Your task to perform on an android device: Empty the shopping cart on bestbuy.com. Search for "energizer triple a" on bestbuy.com, select the first entry, add it to the cart, then select checkout. Image 0: 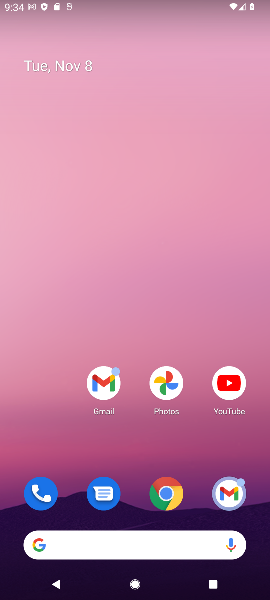
Step 0: click (169, 500)
Your task to perform on an android device: Empty the shopping cart on bestbuy.com. Search for "energizer triple a" on bestbuy.com, select the first entry, add it to the cart, then select checkout. Image 1: 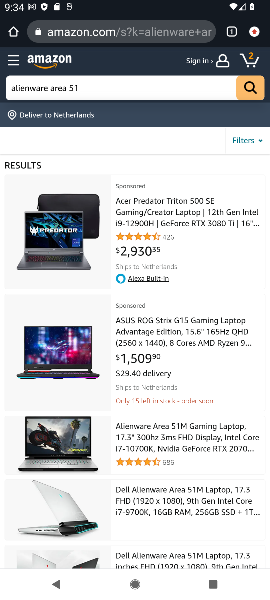
Step 1: click (106, 39)
Your task to perform on an android device: Empty the shopping cart on bestbuy.com. Search for "energizer triple a" on bestbuy.com, select the first entry, add it to the cart, then select checkout. Image 2: 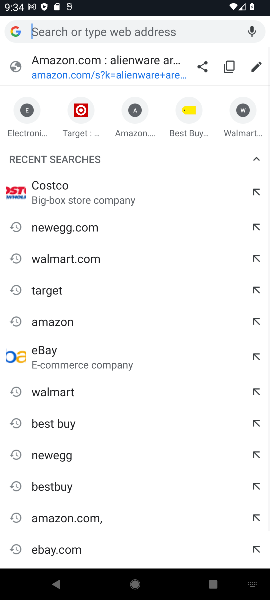
Step 2: click (192, 126)
Your task to perform on an android device: Empty the shopping cart on bestbuy.com. Search for "energizer triple a" on bestbuy.com, select the first entry, add it to the cart, then select checkout. Image 3: 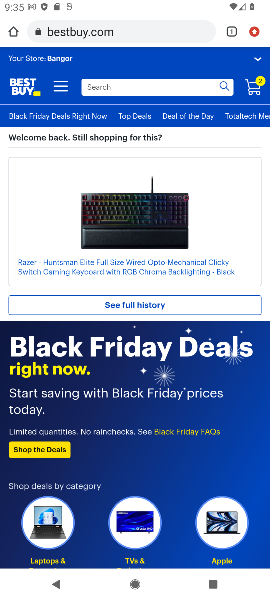
Step 3: click (255, 83)
Your task to perform on an android device: Empty the shopping cart on bestbuy.com. Search for "energizer triple a" on bestbuy.com, select the first entry, add it to the cart, then select checkout. Image 4: 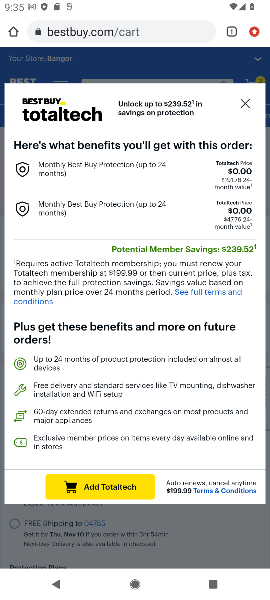
Step 4: click (242, 103)
Your task to perform on an android device: Empty the shopping cart on bestbuy.com. Search for "energizer triple a" on bestbuy.com, select the first entry, add it to the cart, then select checkout. Image 5: 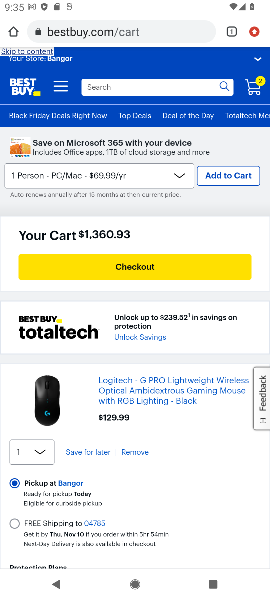
Step 5: click (134, 453)
Your task to perform on an android device: Empty the shopping cart on bestbuy.com. Search for "energizer triple a" on bestbuy.com, select the first entry, add it to the cart, then select checkout. Image 6: 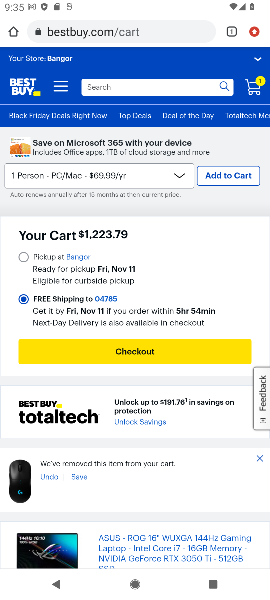
Step 6: drag from (134, 453) to (144, 297)
Your task to perform on an android device: Empty the shopping cart on bestbuy.com. Search for "energizer triple a" on bestbuy.com, select the first entry, add it to the cart, then select checkout. Image 7: 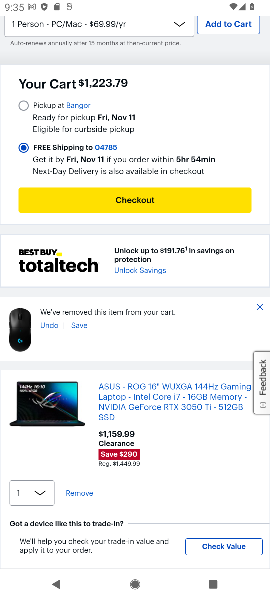
Step 7: click (75, 495)
Your task to perform on an android device: Empty the shopping cart on bestbuy.com. Search for "energizer triple a" on bestbuy.com, select the first entry, add it to the cart, then select checkout. Image 8: 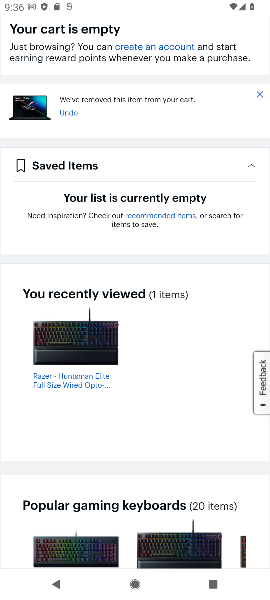
Step 8: drag from (133, 142) to (138, 405)
Your task to perform on an android device: Empty the shopping cart on bestbuy.com. Search for "energizer triple a" on bestbuy.com, select the first entry, add it to the cart, then select checkout. Image 9: 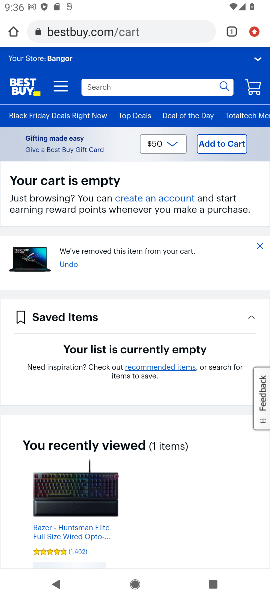
Step 9: click (147, 87)
Your task to perform on an android device: Empty the shopping cart on bestbuy.com. Search for "energizer triple a" on bestbuy.com, select the first entry, add it to the cart, then select checkout. Image 10: 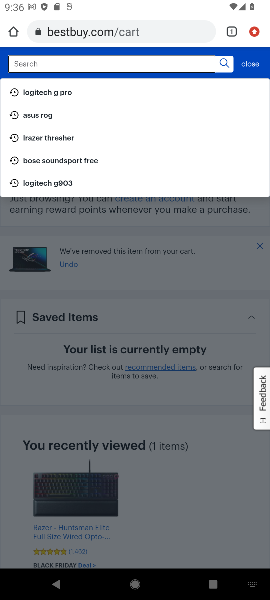
Step 10: type "energizer triple a"
Your task to perform on an android device: Empty the shopping cart on bestbuy.com. Search for "energizer triple a" on bestbuy.com, select the first entry, add it to the cart, then select checkout. Image 11: 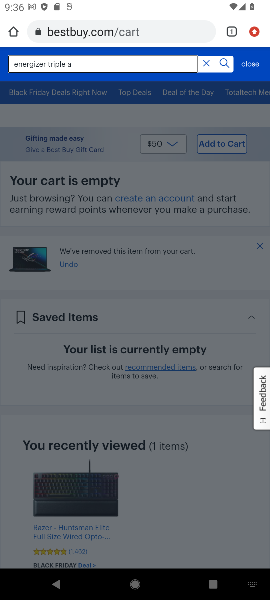
Step 11: click (224, 67)
Your task to perform on an android device: Empty the shopping cart on bestbuy.com. Search for "energizer triple a" on bestbuy.com, select the first entry, add it to the cart, then select checkout. Image 12: 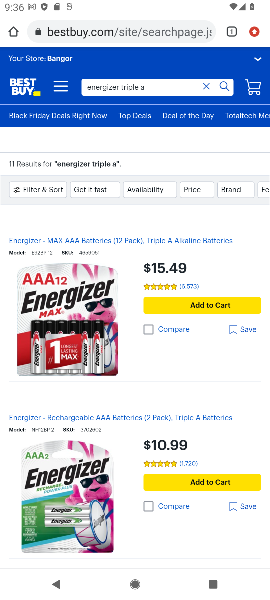
Step 12: click (85, 307)
Your task to perform on an android device: Empty the shopping cart on bestbuy.com. Search for "energizer triple a" on bestbuy.com, select the first entry, add it to the cart, then select checkout. Image 13: 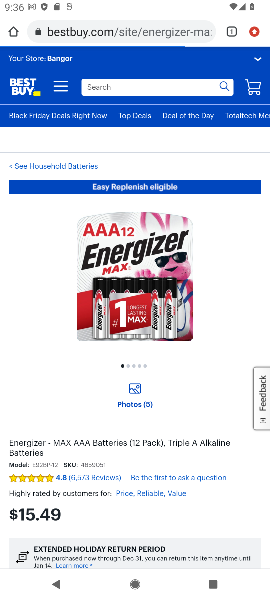
Step 13: drag from (114, 425) to (129, 239)
Your task to perform on an android device: Empty the shopping cart on bestbuy.com. Search for "energizer triple a" on bestbuy.com, select the first entry, add it to the cart, then select checkout. Image 14: 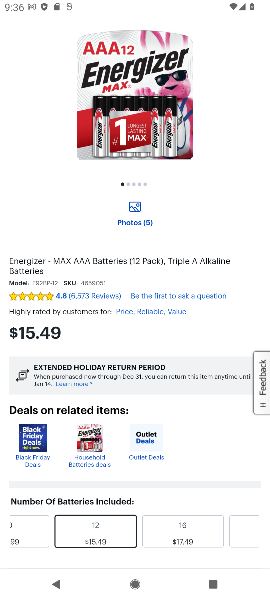
Step 14: drag from (103, 432) to (133, 244)
Your task to perform on an android device: Empty the shopping cart on bestbuy.com. Search for "energizer triple a" on bestbuy.com, select the first entry, add it to the cart, then select checkout. Image 15: 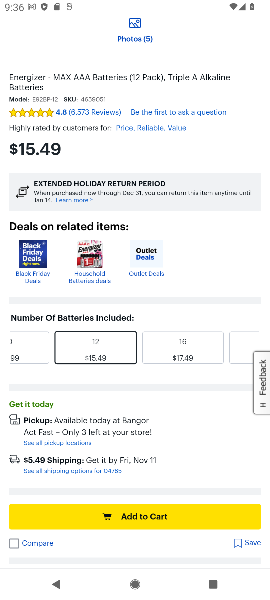
Step 15: click (130, 518)
Your task to perform on an android device: Empty the shopping cart on bestbuy.com. Search for "energizer triple a" on bestbuy.com, select the first entry, add it to the cart, then select checkout. Image 16: 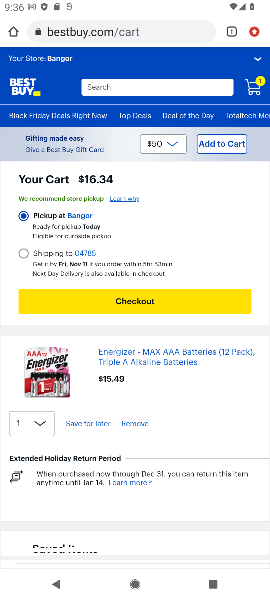
Step 16: click (133, 301)
Your task to perform on an android device: Empty the shopping cart on bestbuy.com. Search for "energizer triple a" on bestbuy.com, select the first entry, add it to the cart, then select checkout. Image 17: 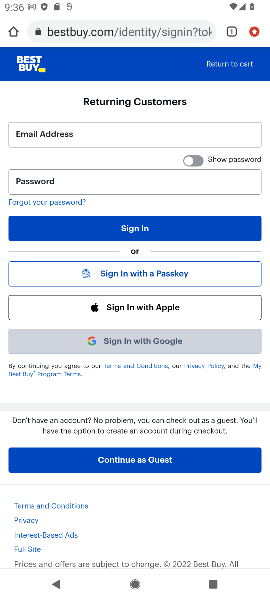
Step 17: task complete